Your task to perform on an android device: Open Reddit.com Image 0: 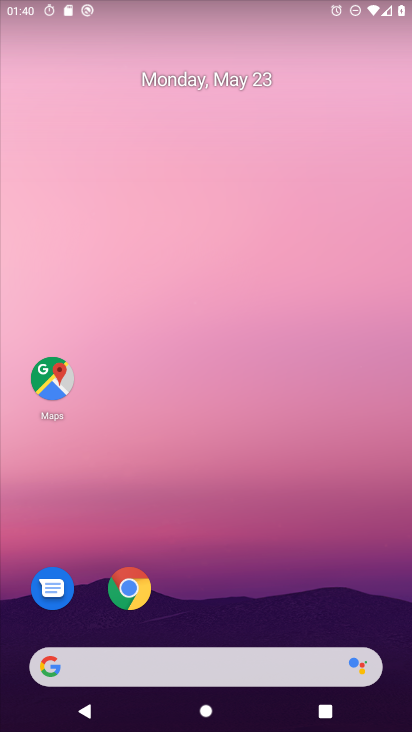
Step 0: press home button
Your task to perform on an android device: Open Reddit.com Image 1: 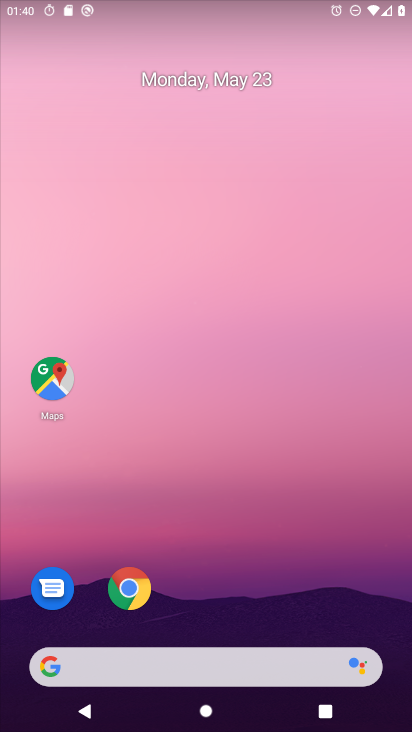
Step 1: drag from (263, 669) to (188, 156)
Your task to perform on an android device: Open Reddit.com Image 2: 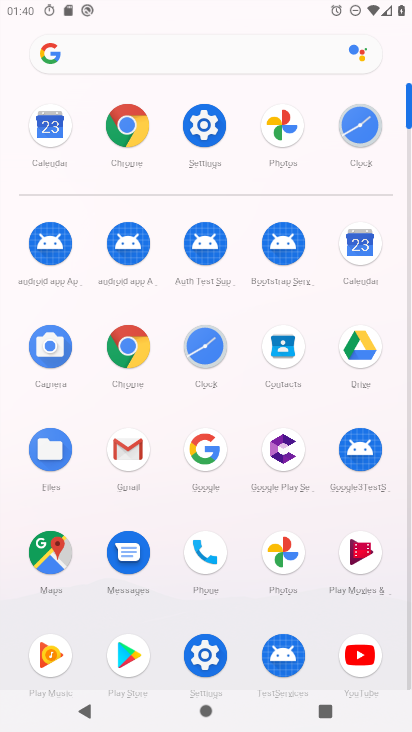
Step 2: click (133, 144)
Your task to perform on an android device: Open Reddit.com Image 3: 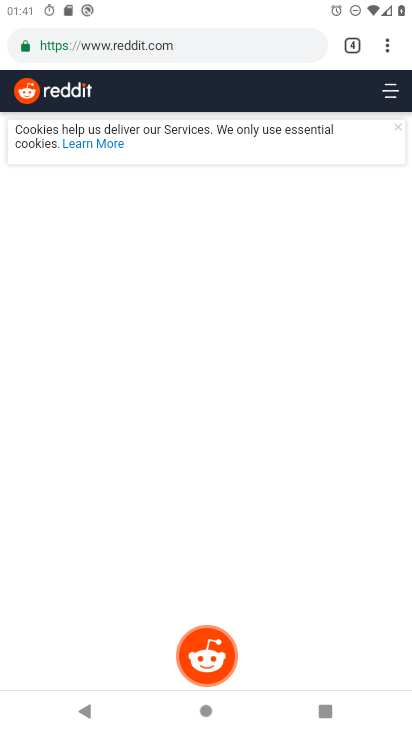
Step 3: task complete